Your task to perform on an android device: What's on my calendar today? Image 0: 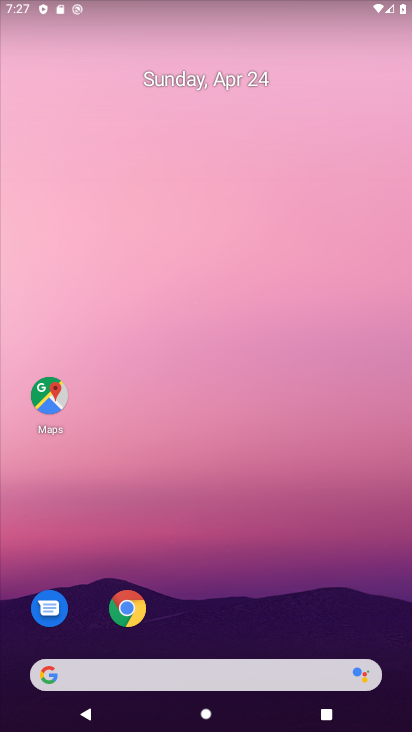
Step 0: drag from (257, 585) to (307, 130)
Your task to perform on an android device: What's on my calendar today? Image 1: 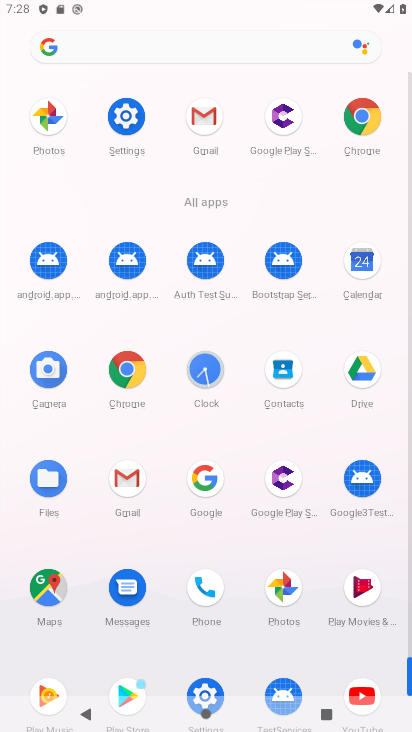
Step 1: click (369, 268)
Your task to perform on an android device: What's on my calendar today? Image 2: 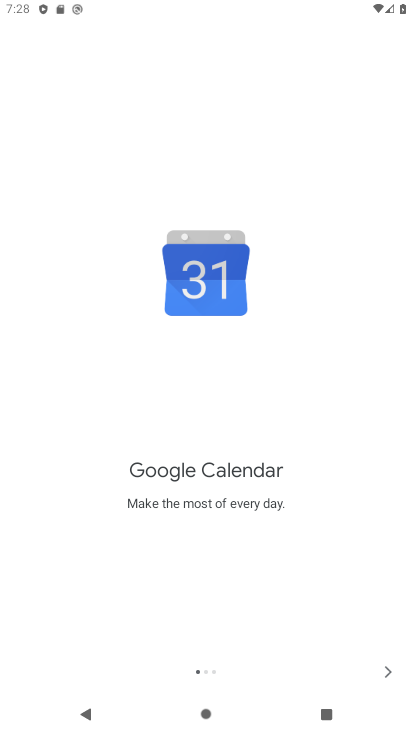
Step 2: click (387, 675)
Your task to perform on an android device: What's on my calendar today? Image 3: 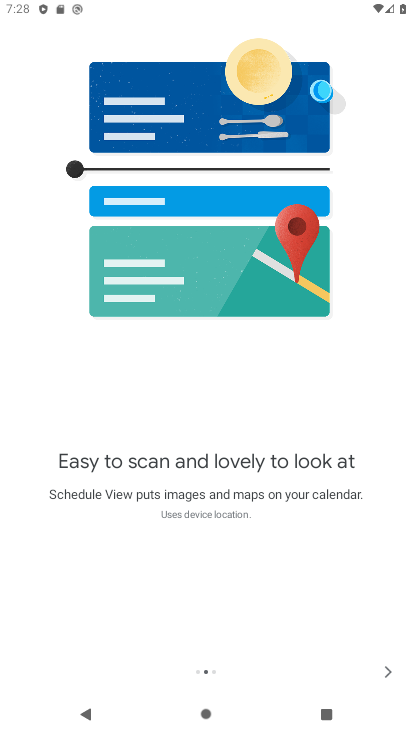
Step 3: click (387, 675)
Your task to perform on an android device: What's on my calendar today? Image 4: 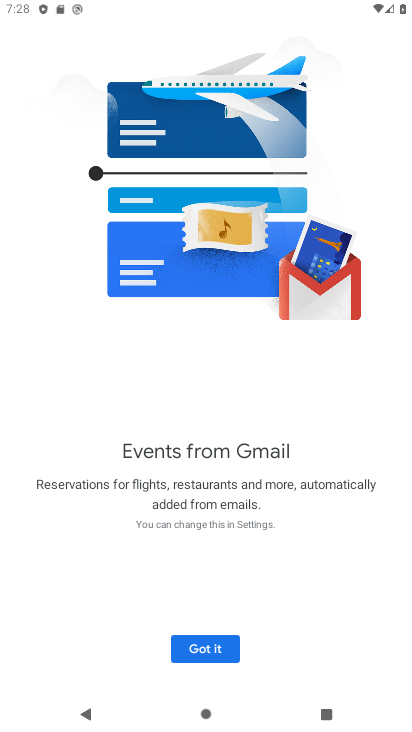
Step 4: click (226, 644)
Your task to perform on an android device: What's on my calendar today? Image 5: 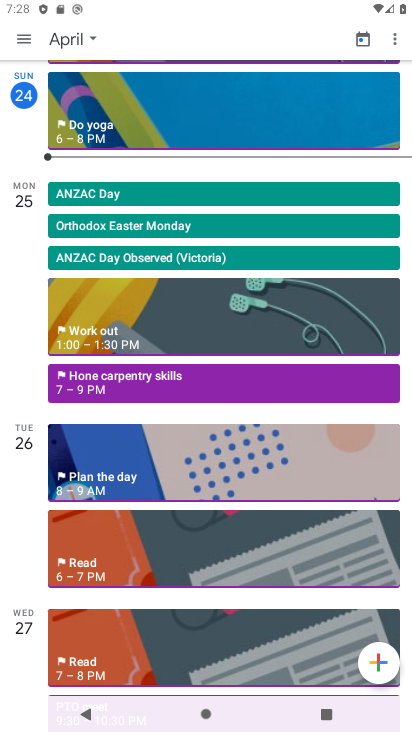
Step 5: task complete